Your task to perform on an android device: Add "duracell triple a" to the cart on walmart.com, then select checkout. Image 0: 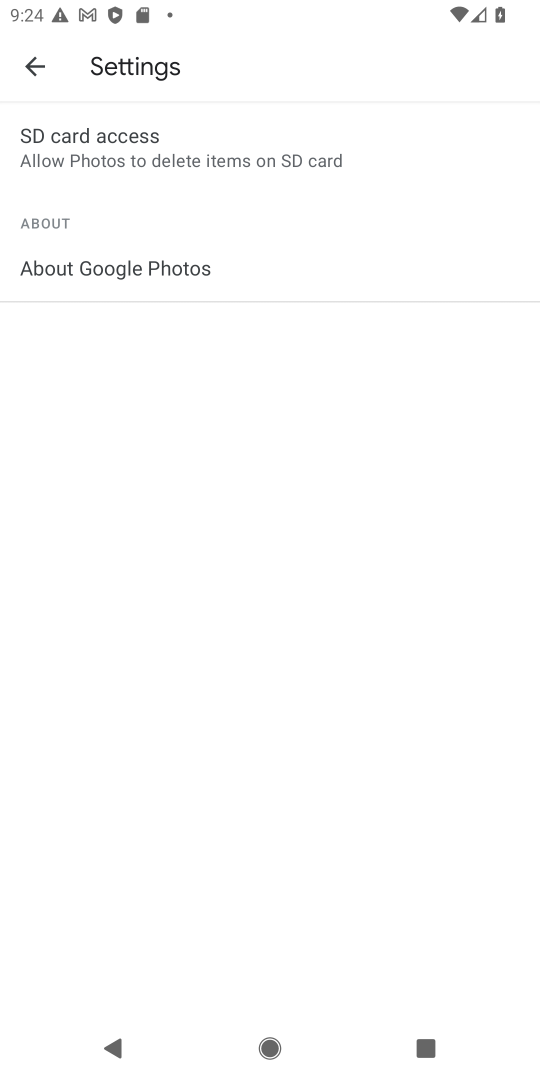
Step 0: press home button
Your task to perform on an android device: Add "duracell triple a" to the cart on walmart.com, then select checkout. Image 1: 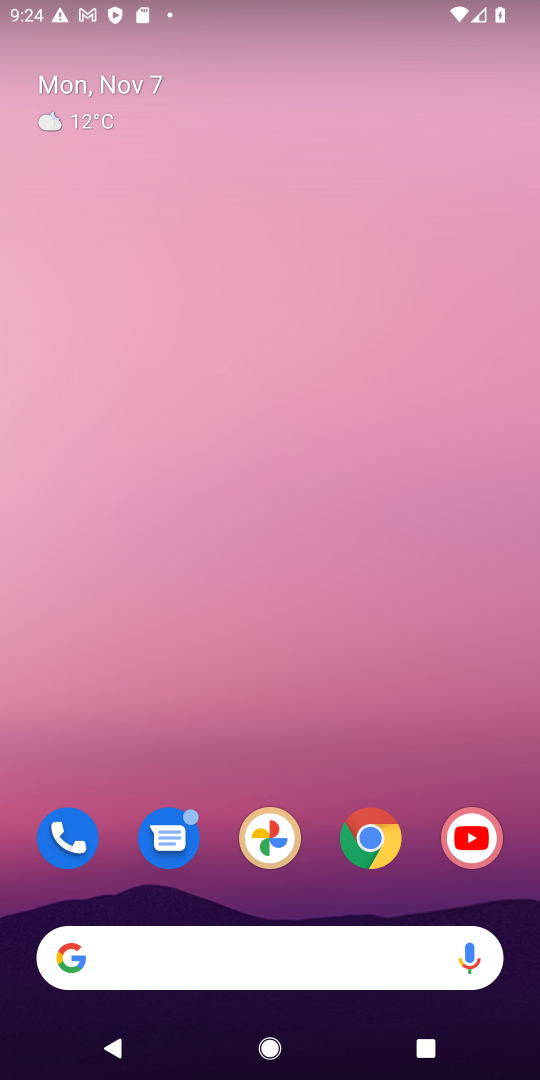
Step 1: click (371, 832)
Your task to perform on an android device: Add "duracell triple a" to the cart on walmart.com, then select checkout. Image 2: 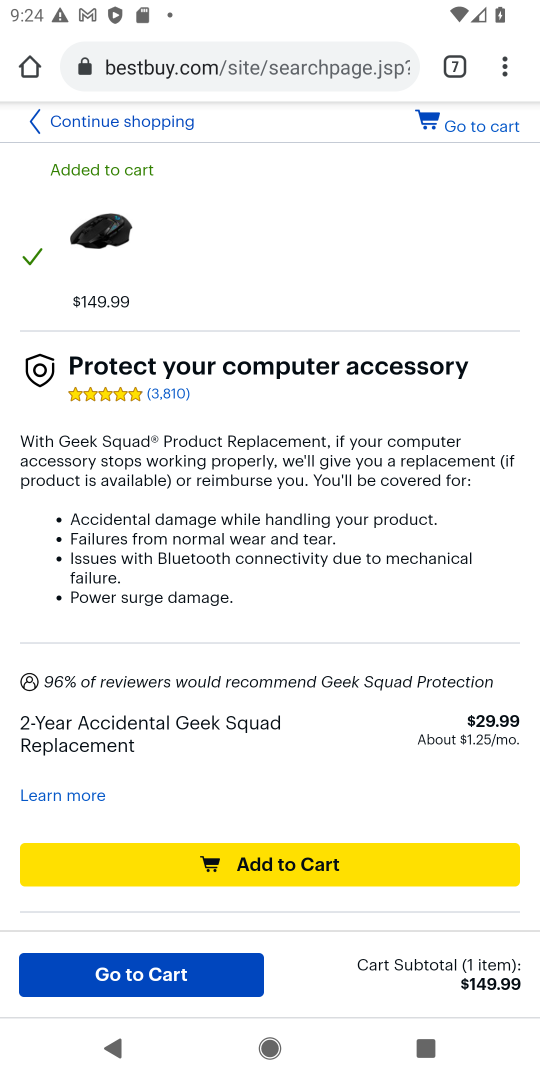
Step 2: click (457, 73)
Your task to perform on an android device: Add "duracell triple a" to the cart on walmart.com, then select checkout. Image 3: 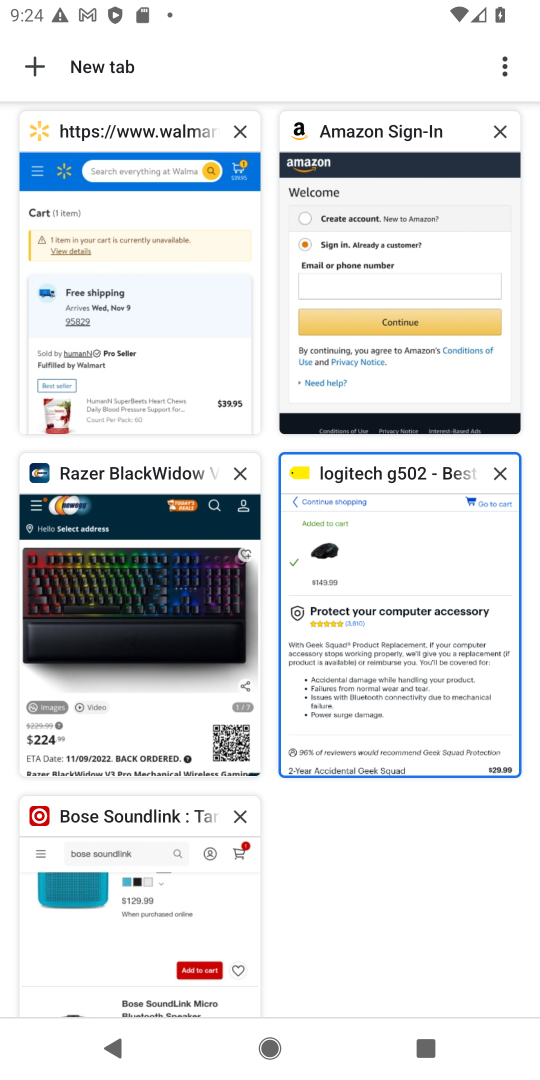
Step 3: click (184, 325)
Your task to perform on an android device: Add "duracell triple a" to the cart on walmart.com, then select checkout. Image 4: 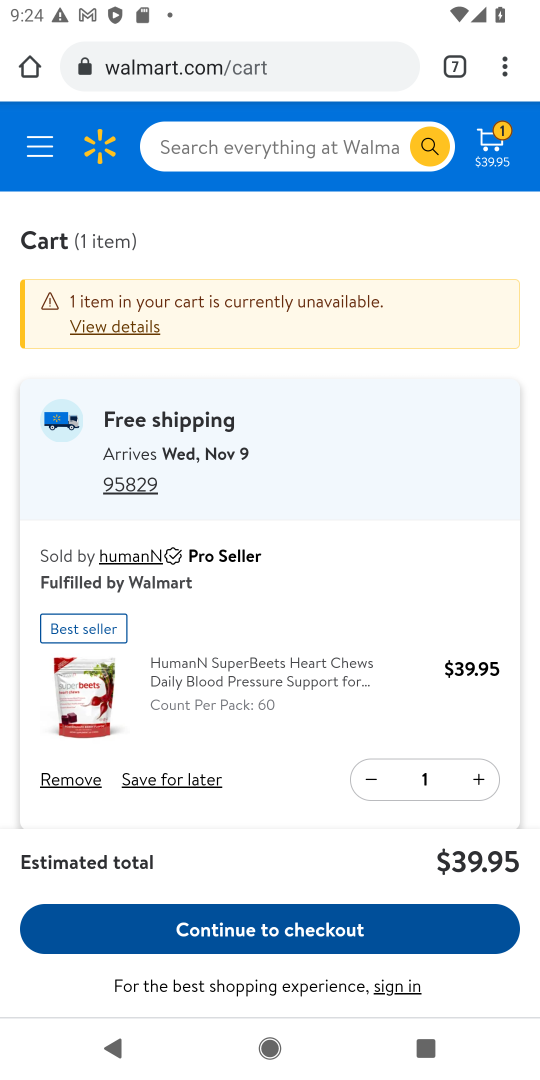
Step 4: click (245, 136)
Your task to perform on an android device: Add "duracell triple a" to the cart on walmart.com, then select checkout. Image 5: 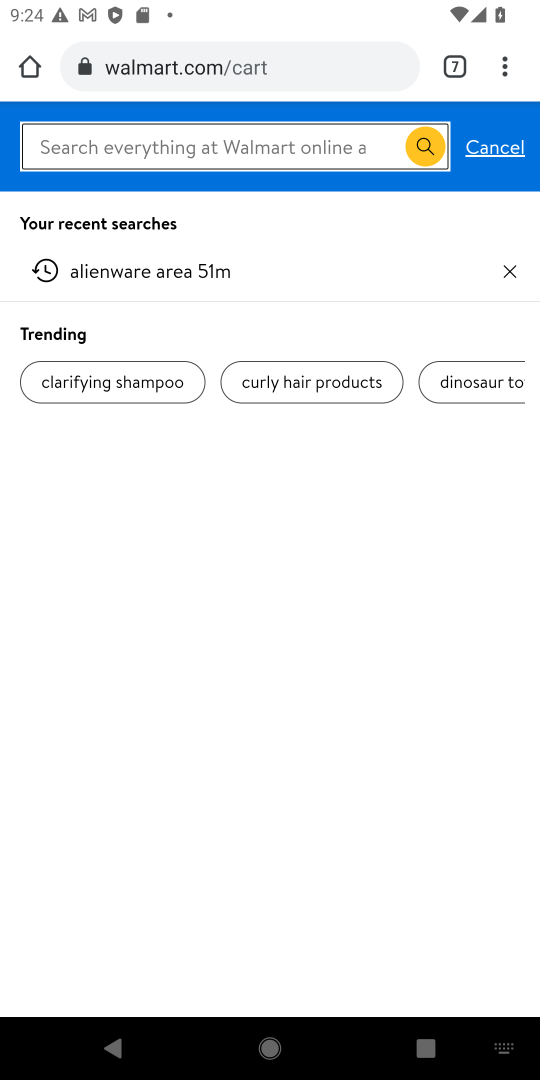
Step 5: type "duracell triple a battery"
Your task to perform on an android device: Add "duracell triple a" to the cart on walmart.com, then select checkout. Image 6: 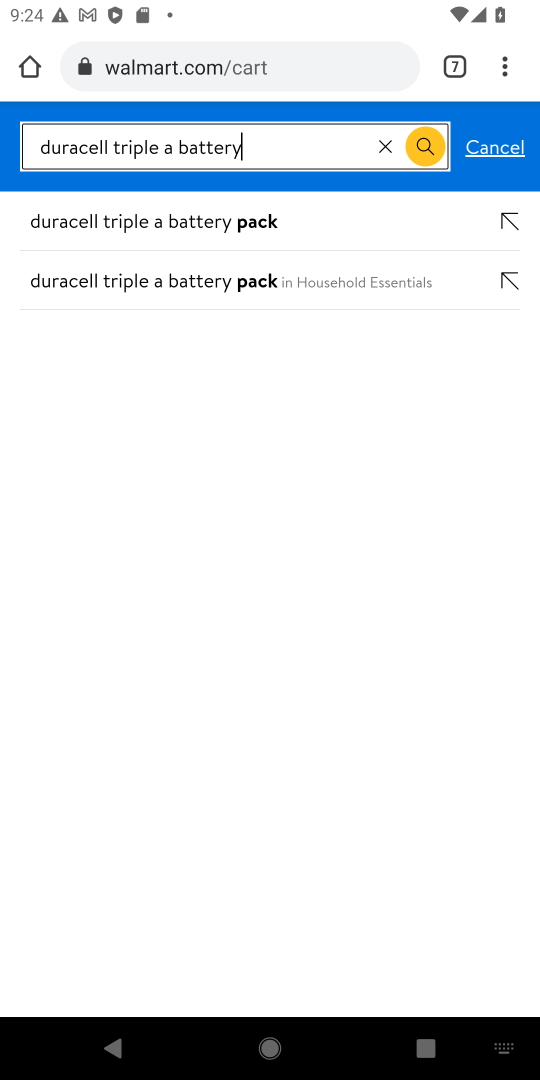
Step 6: click (211, 285)
Your task to perform on an android device: Add "duracell triple a" to the cart on walmart.com, then select checkout. Image 7: 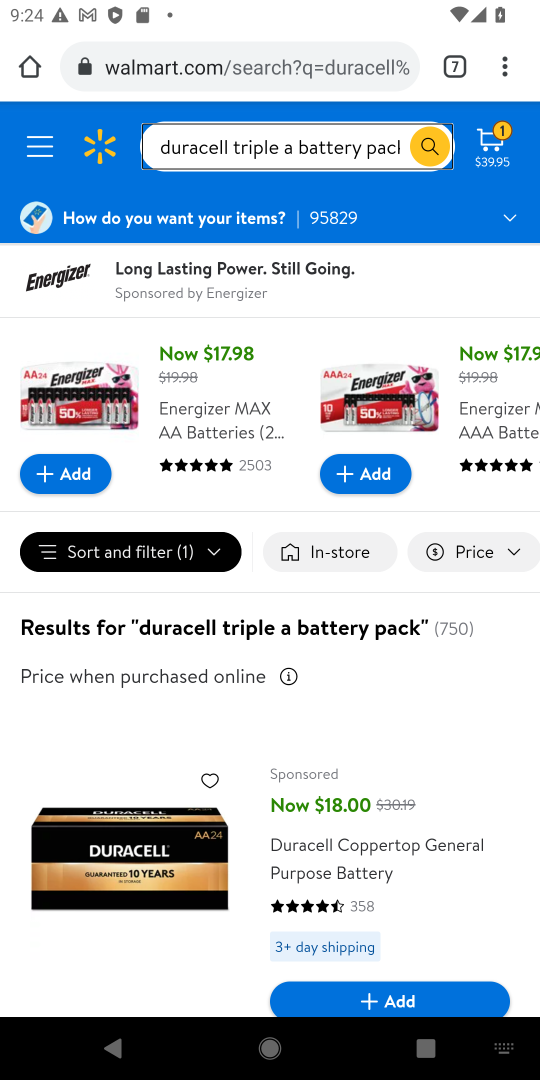
Step 7: click (539, 826)
Your task to perform on an android device: Add "duracell triple a" to the cart on walmart.com, then select checkout. Image 8: 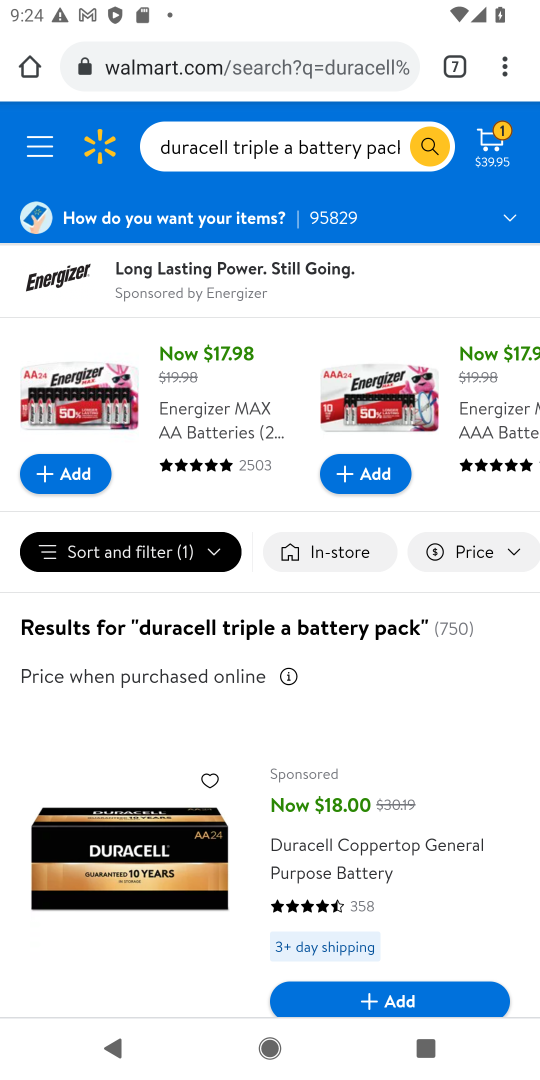
Step 8: drag from (461, 778) to (433, 657)
Your task to perform on an android device: Add "duracell triple a" to the cart on walmart.com, then select checkout. Image 9: 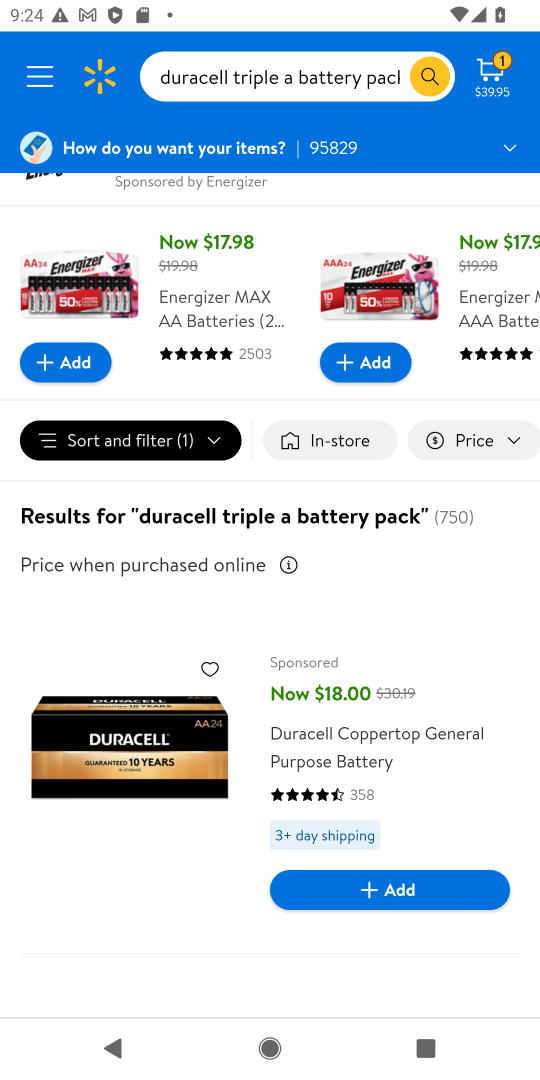
Step 9: click (401, 879)
Your task to perform on an android device: Add "duracell triple a" to the cart on walmart.com, then select checkout. Image 10: 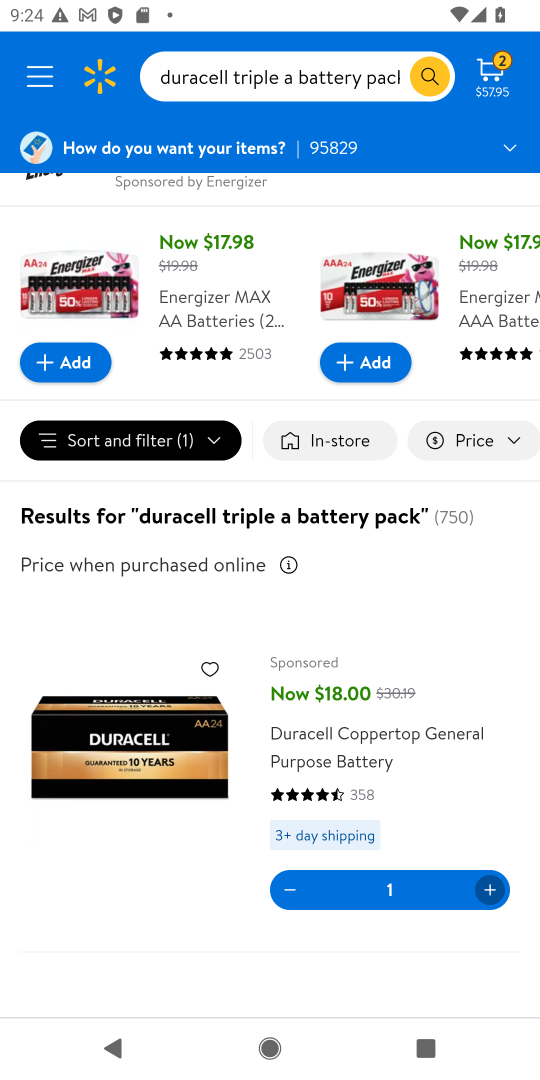
Step 10: task complete